Your task to perform on an android device: install app "Microsoft Authenticator" Image 0: 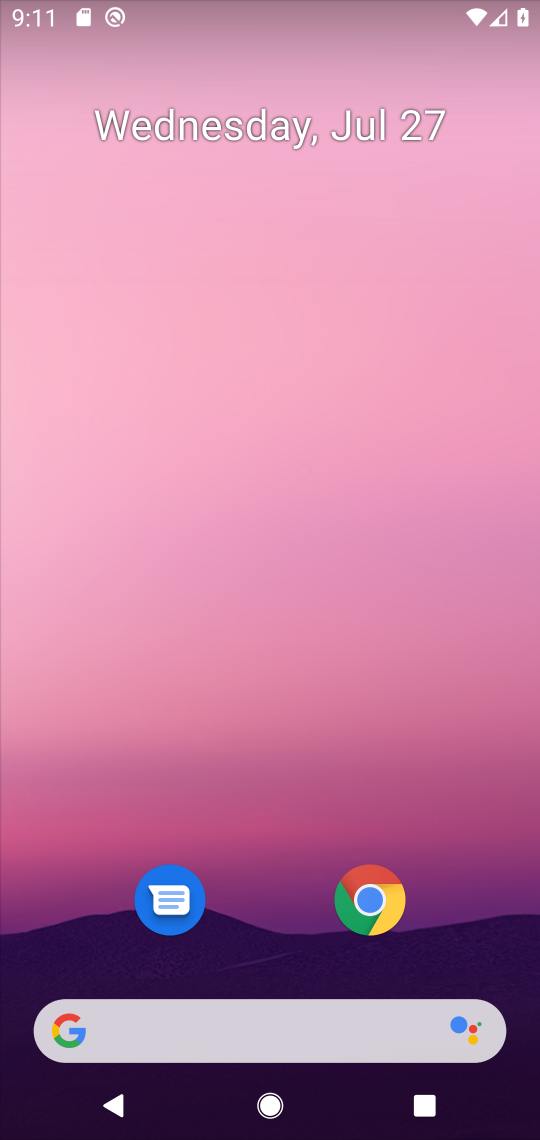
Step 0: drag from (281, 879) to (367, 325)
Your task to perform on an android device: install app "Microsoft Authenticator" Image 1: 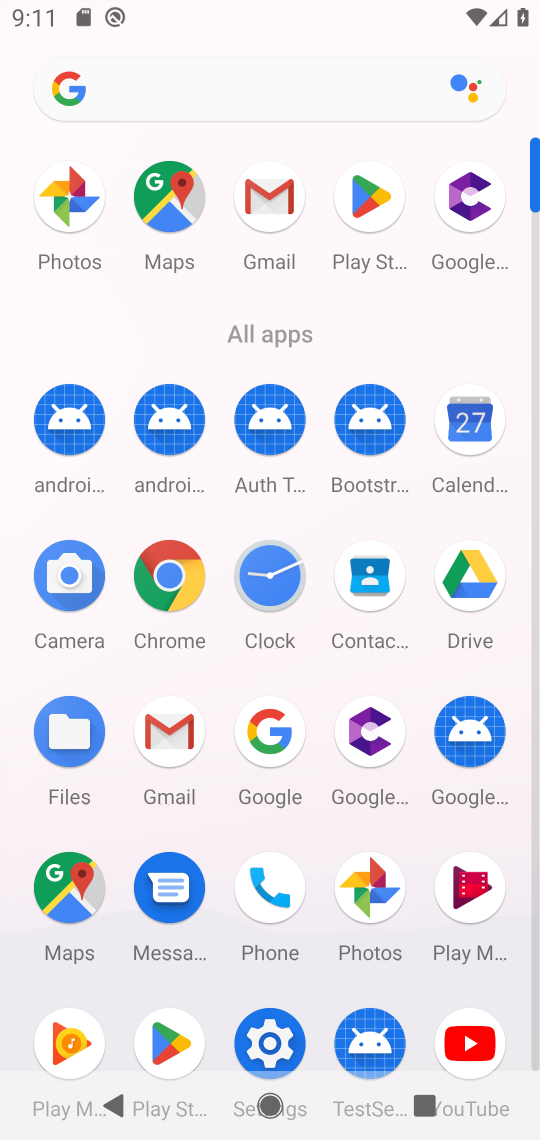
Step 1: click (369, 206)
Your task to perform on an android device: install app "Microsoft Authenticator" Image 2: 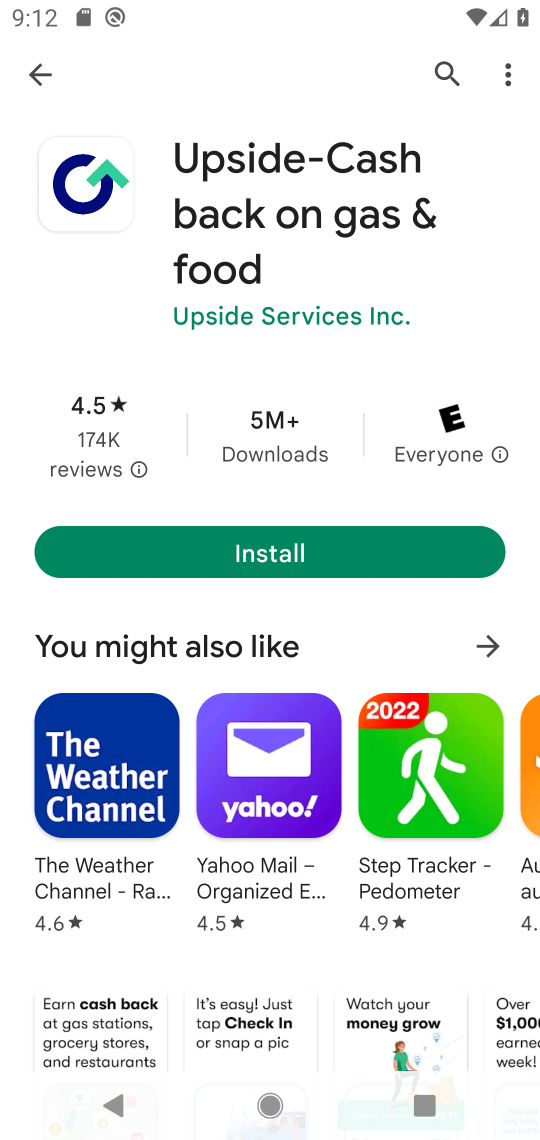
Step 2: click (453, 69)
Your task to perform on an android device: install app "Microsoft Authenticator" Image 3: 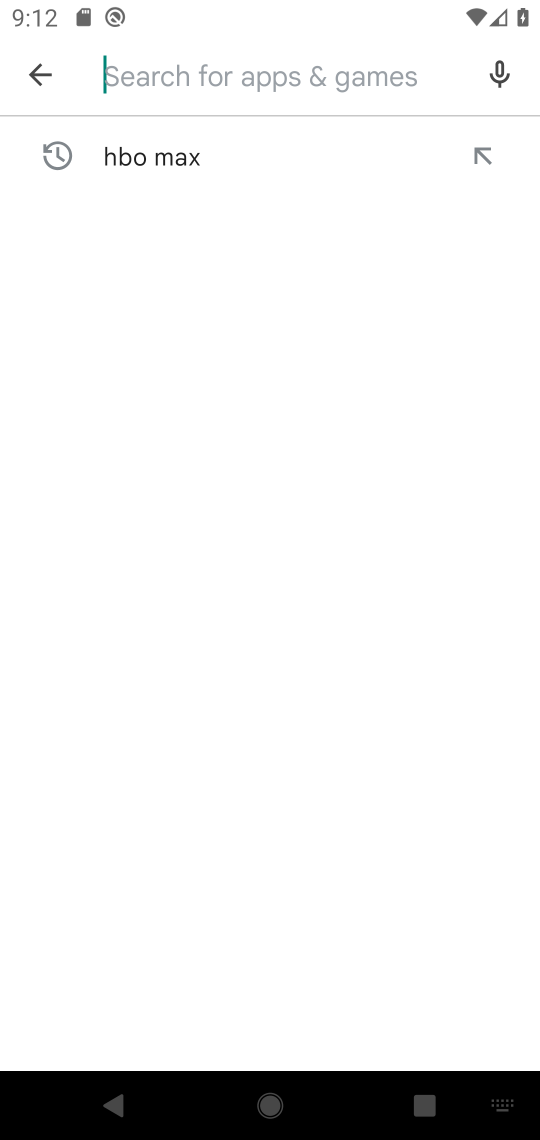
Step 3: type "Microsoft Authenticator"
Your task to perform on an android device: install app "Microsoft Authenticator" Image 4: 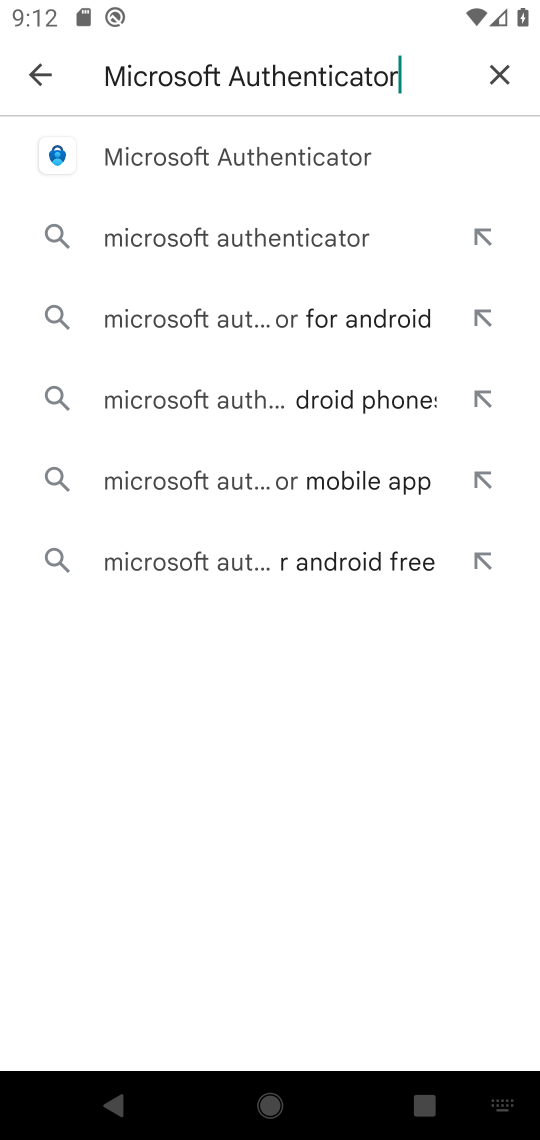
Step 4: click (201, 145)
Your task to perform on an android device: install app "Microsoft Authenticator" Image 5: 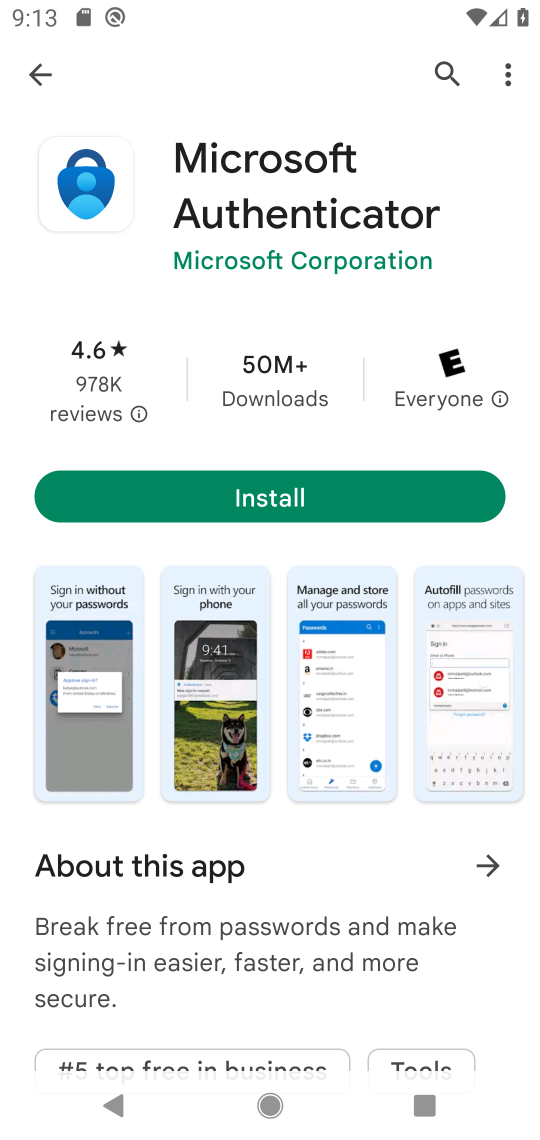
Step 5: click (339, 517)
Your task to perform on an android device: install app "Microsoft Authenticator" Image 6: 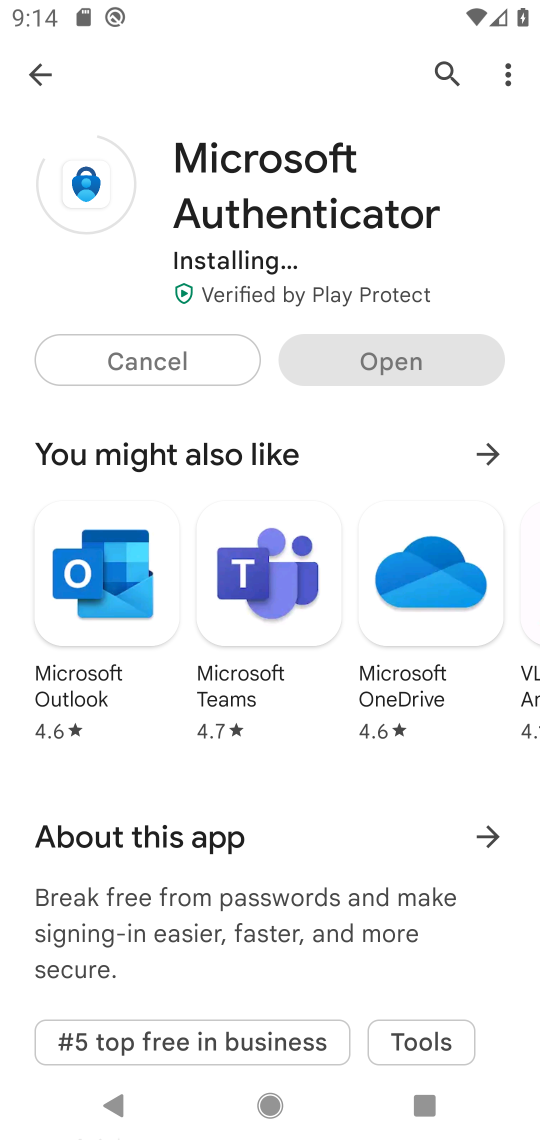
Step 6: task complete